Your task to perform on an android device: install app "PUBG MOBILE" Image 0: 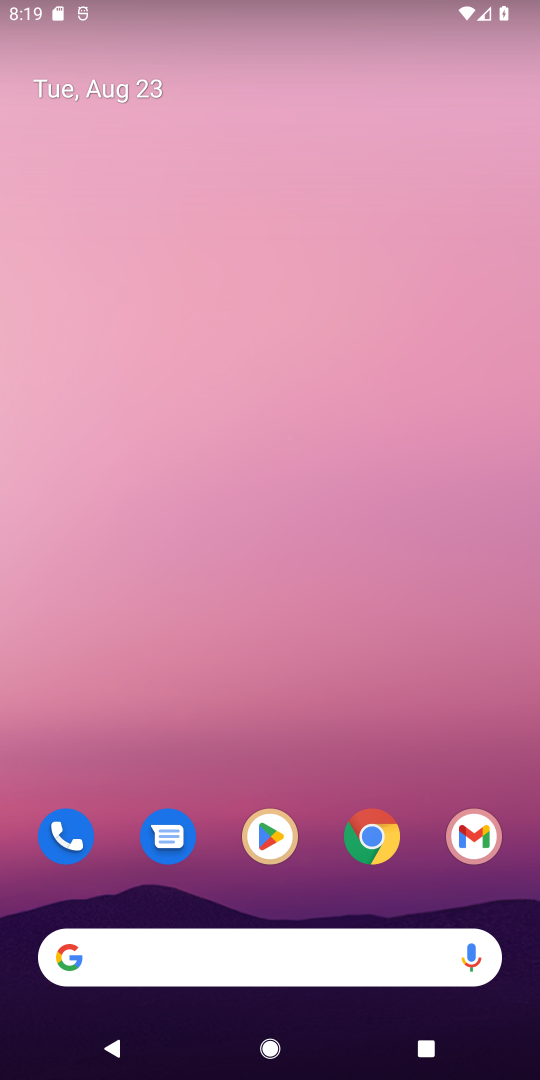
Step 0: click (266, 833)
Your task to perform on an android device: install app "PUBG MOBILE" Image 1: 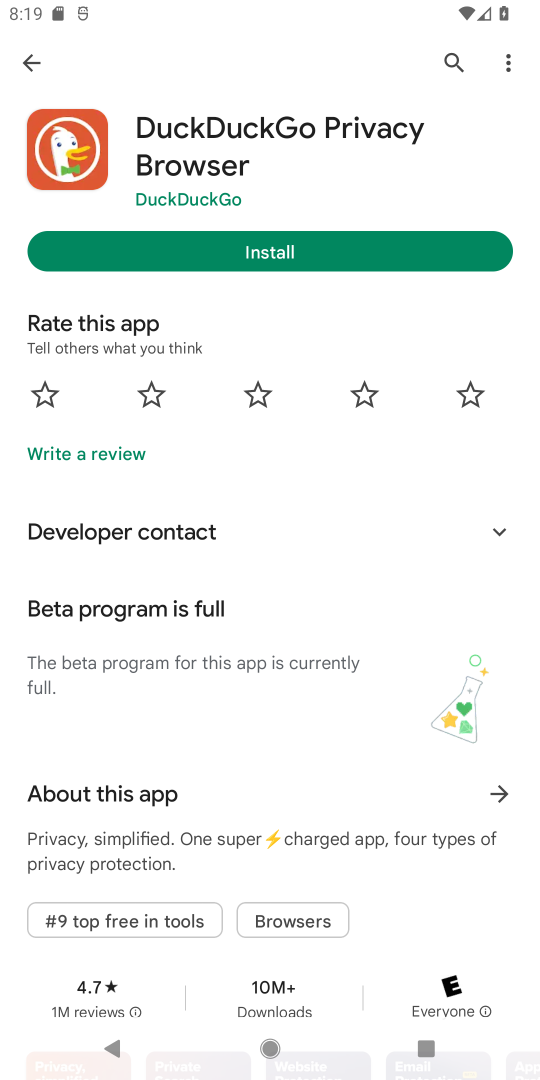
Step 1: click (452, 58)
Your task to perform on an android device: install app "PUBG MOBILE" Image 2: 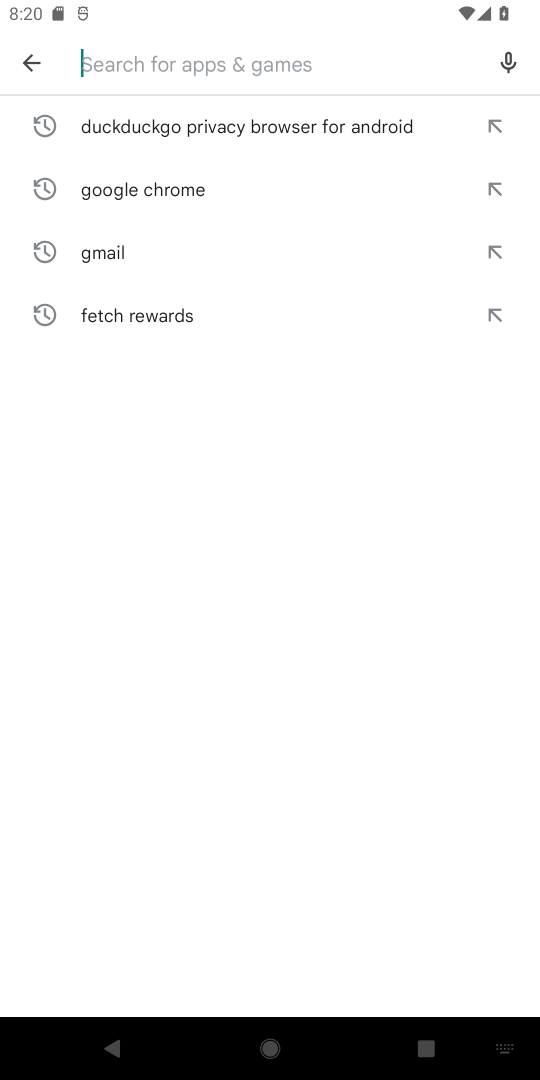
Step 2: type "PUBG MOBILE"
Your task to perform on an android device: install app "PUBG MOBILE" Image 3: 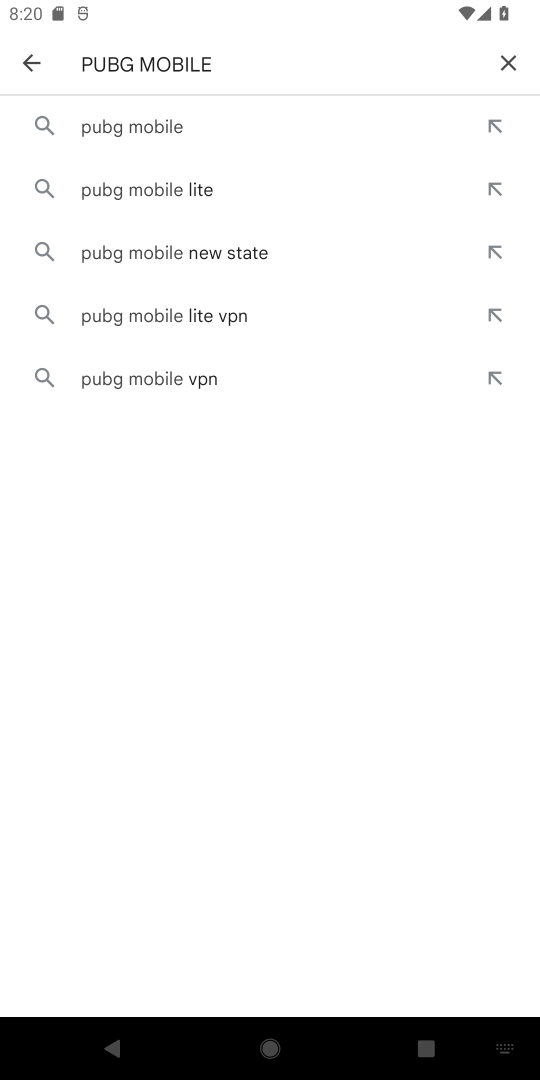
Step 3: click (107, 115)
Your task to perform on an android device: install app "PUBG MOBILE" Image 4: 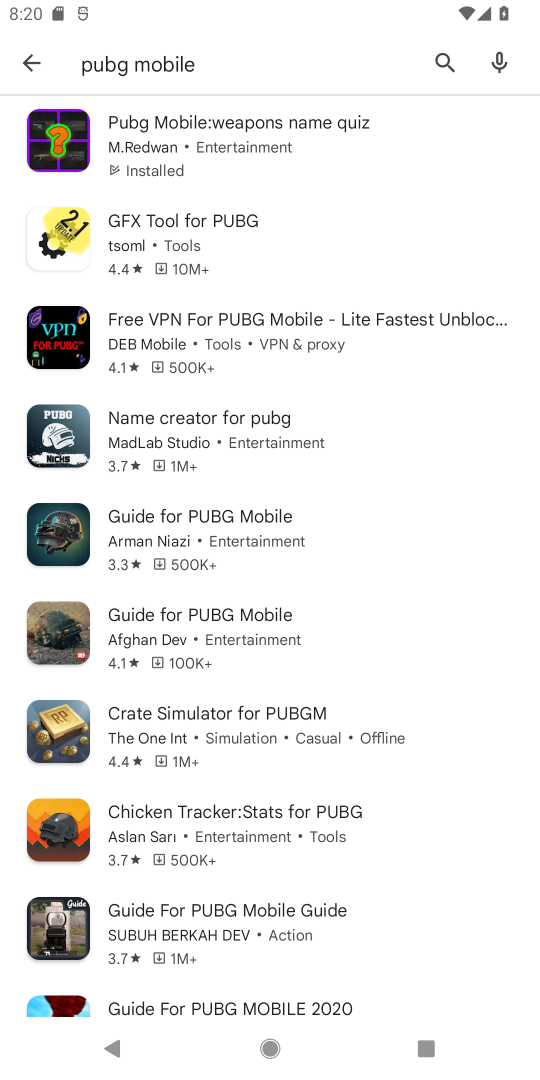
Step 4: click (139, 139)
Your task to perform on an android device: install app "PUBG MOBILE" Image 5: 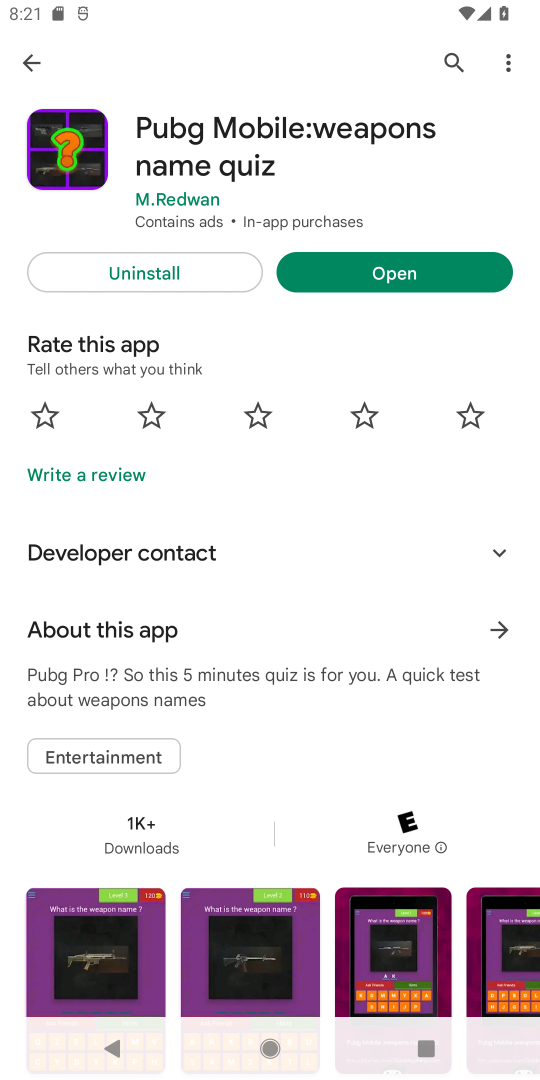
Step 5: task complete